Your task to perform on an android device: change notification settings in the gmail app Image 0: 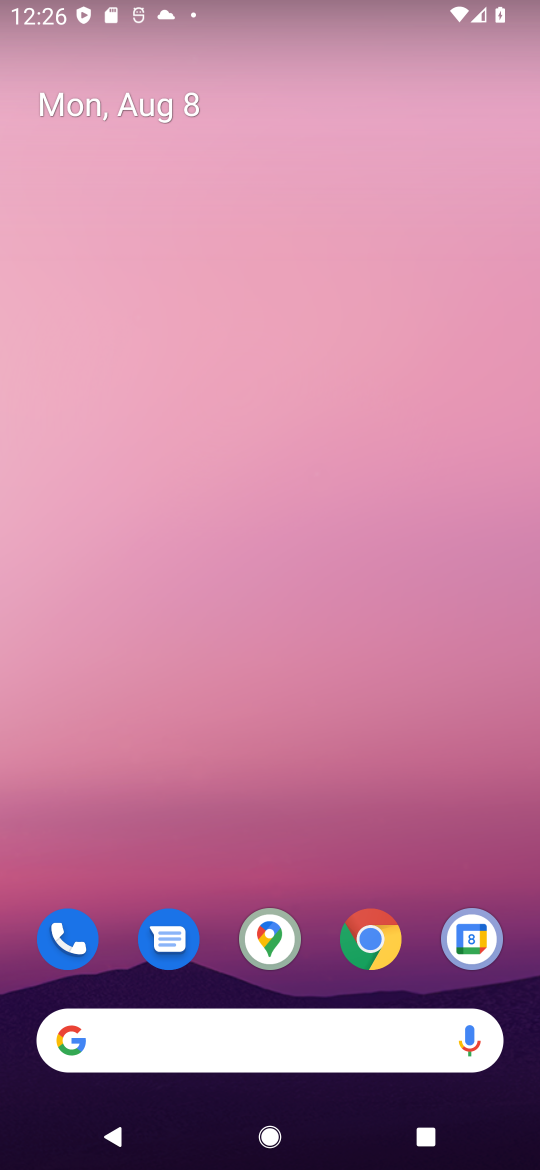
Step 0: drag from (298, 1045) to (388, 457)
Your task to perform on an android device: change notification settings in the gmail app Image 1: 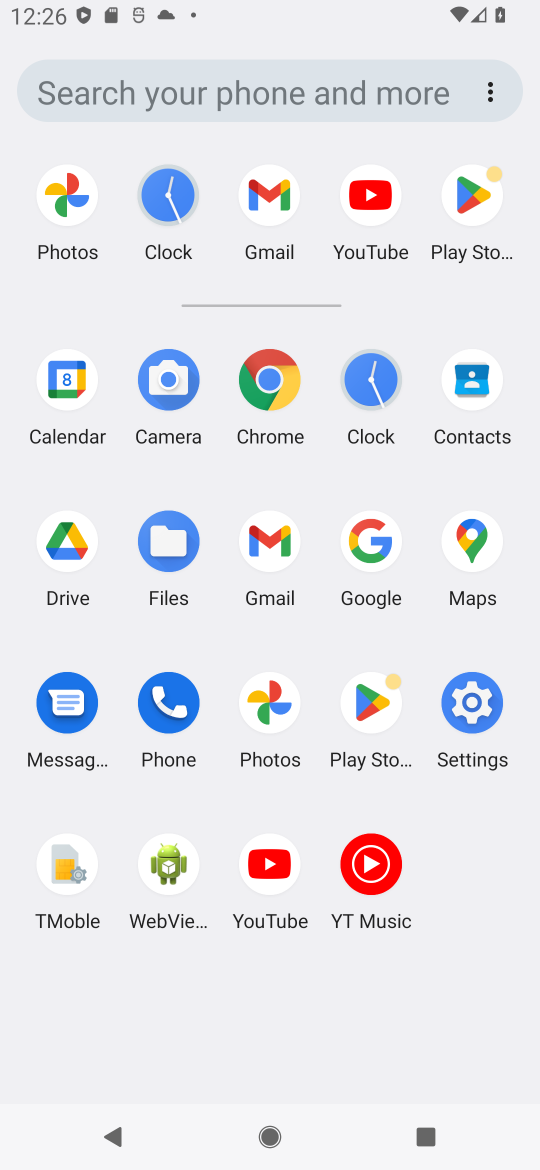
Step 1: click (267, 195)
Your task to perform on an android device: change notification settings in the gmail app Image 2: 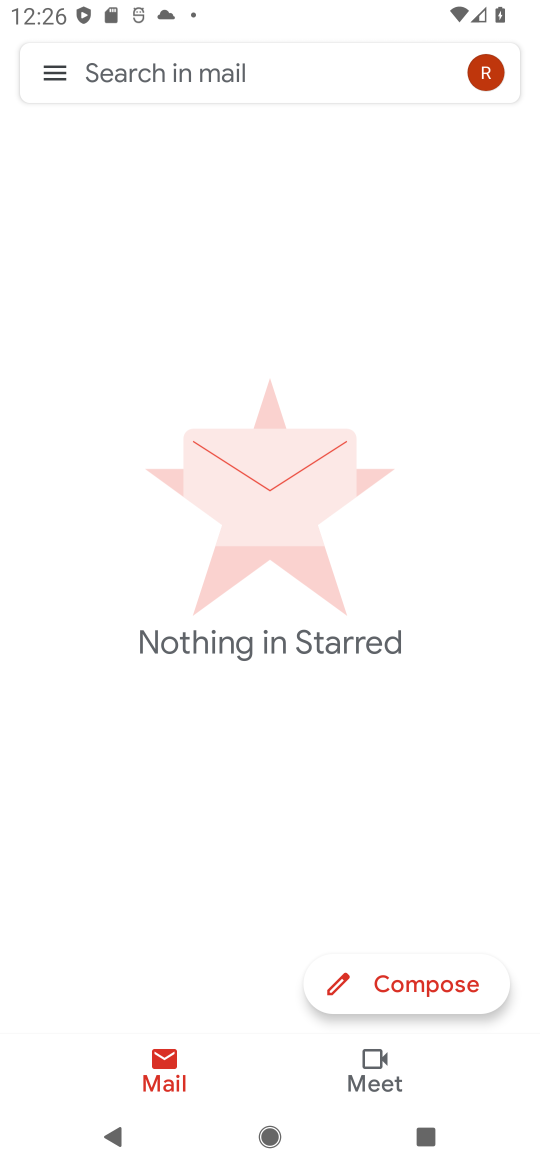
Step 2: click (58, 75)
Your task to perform on an android device: change notification settings in the gmail app Image 3: 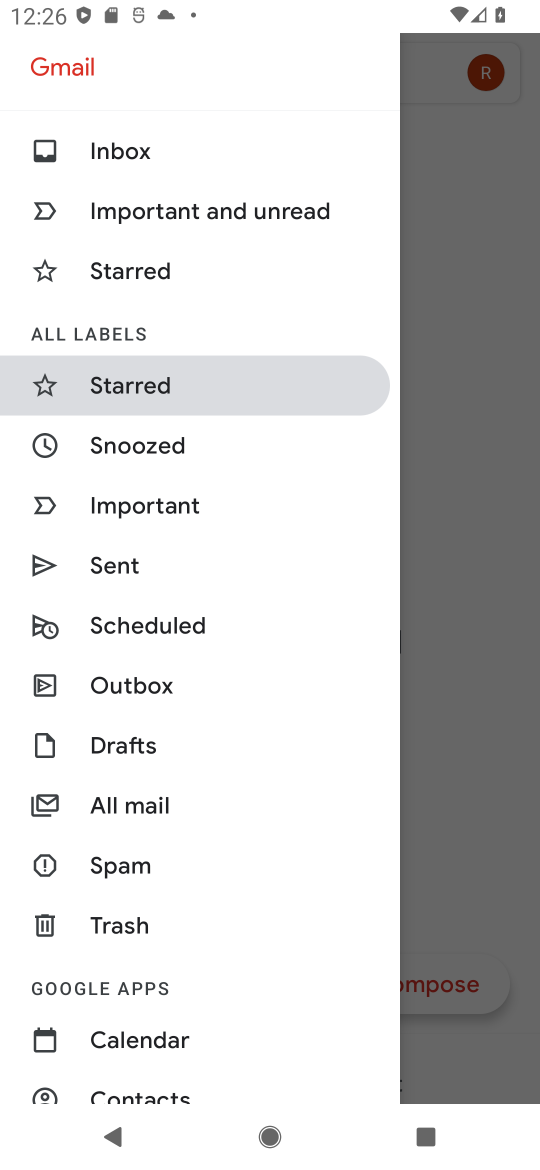
Step 3: drag from (118, 764) to (245, 579)
Your task to perform on an android device: change notification settings in the gmail app Image 4: 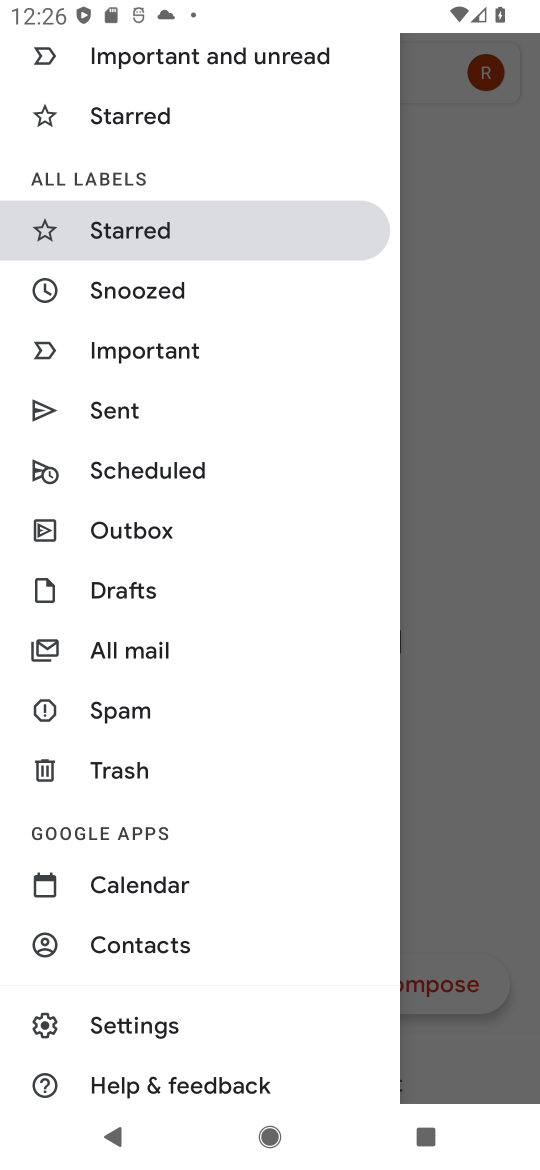
Step 4: click (108, 1025)
Your task to perform on an android device: change notification settings in the gmail app Image 5: 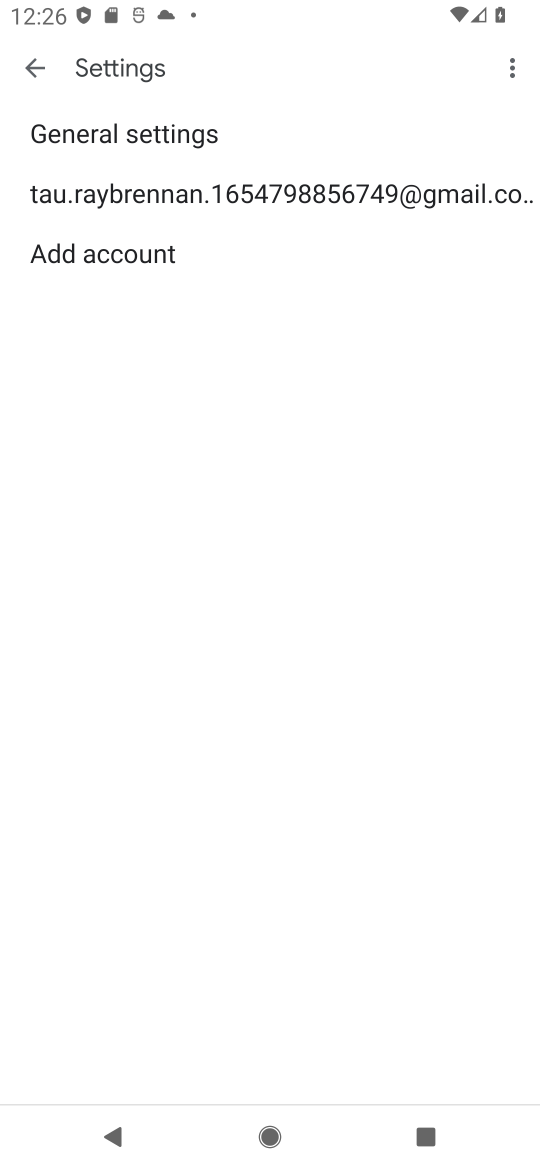
Step 5: click (365, 190)
Your task to perform on an android device: change notification settings in the gmail app Image 6: 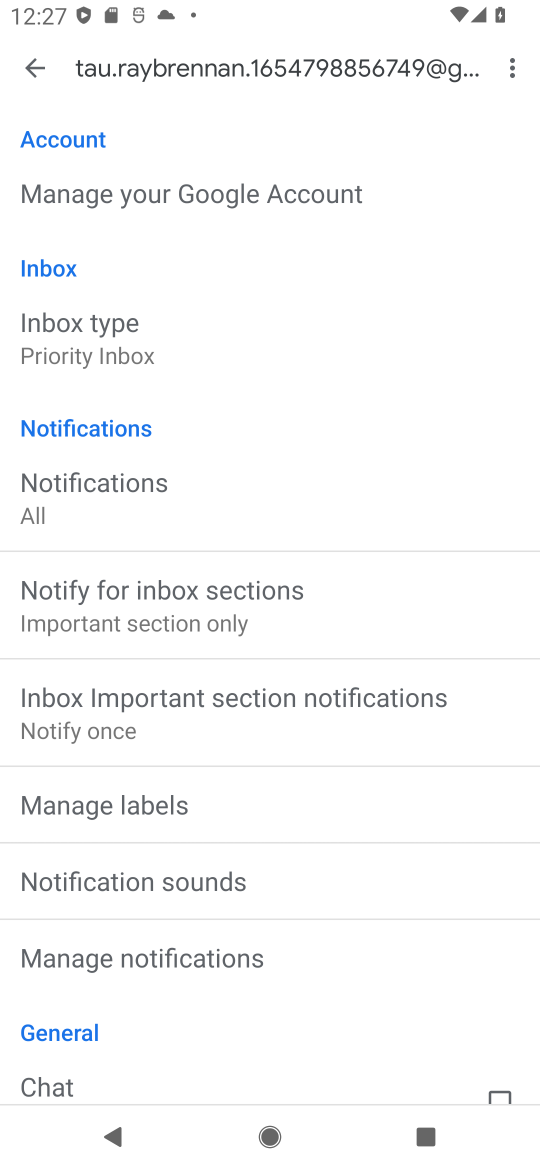
Step 6: click (185, 956)
Your task to perform on an android device: change notification settings in the gmail app Image 7: 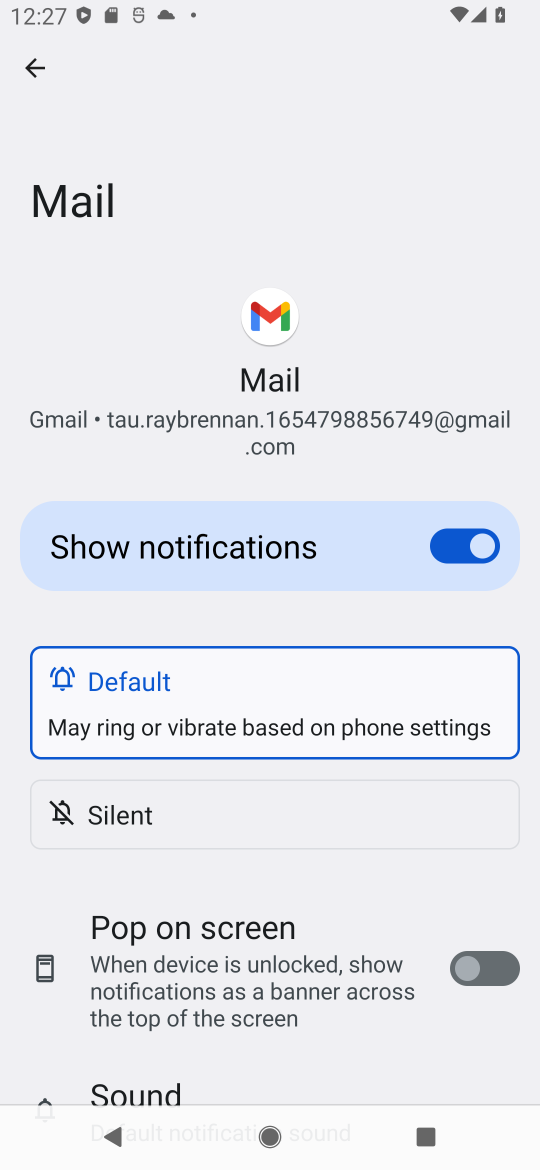
Step 7: click (458, 548)
Your task to perform on an android device: change notification settings in the gmail app Image 8: 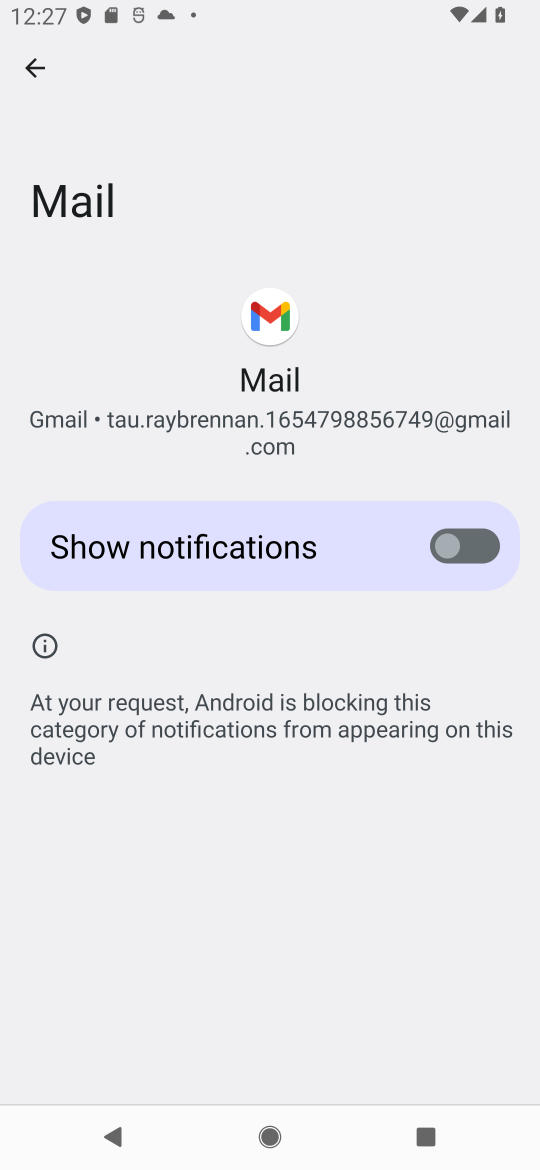
Step 8: task complete